Your task to perform on an android device: Go to privacy settings Image 0: 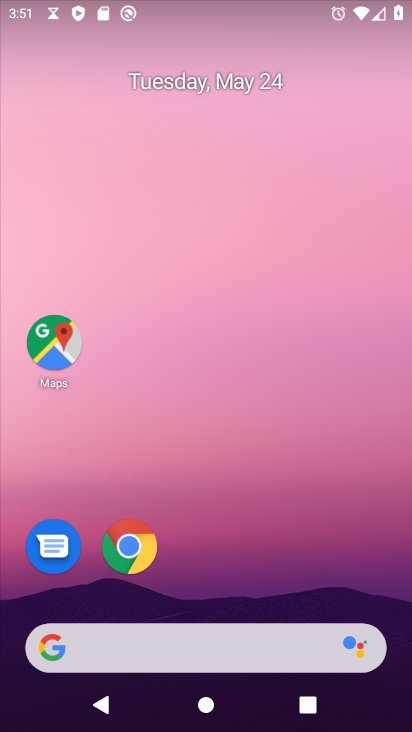
Step 0: drag from (262, 612) to (241, 79)
Your task to perform on an android device: Go to privacy settings Image 1: 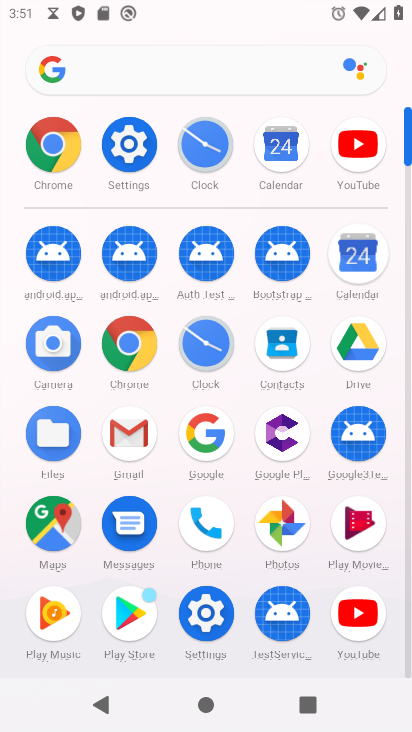
Step 1: click (124, 150)
Your task to perform on an android device: Go to privacy settings Image 2: 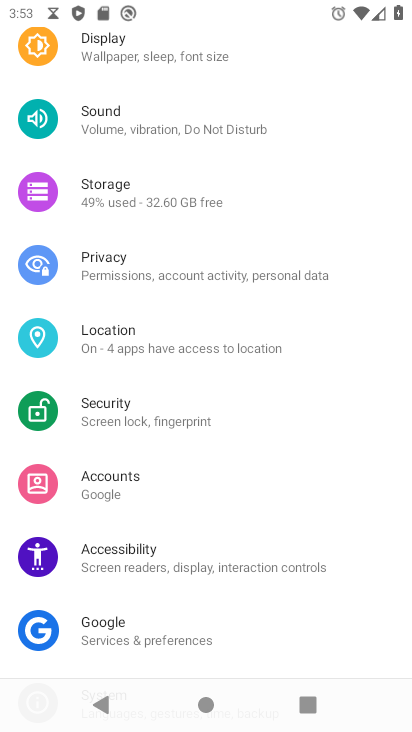
Step 2: drag from (164, 560) to (172, 243)
Your task to perform on an android device: Go to privacy settings Image 3: 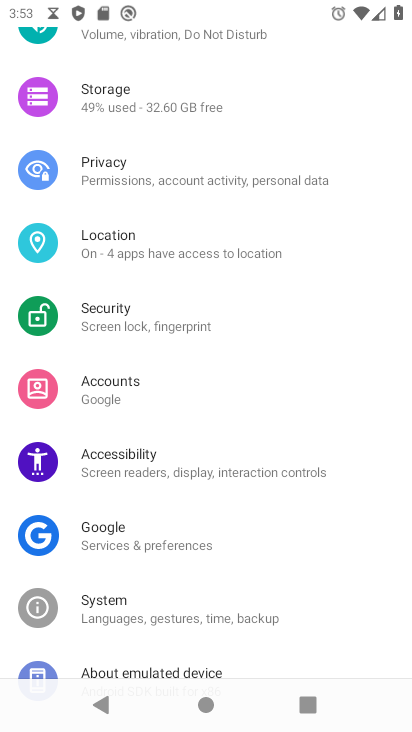
Step 3: click (102, 174)
Your task to perform on an android device: Go to privacy settings Image 4: 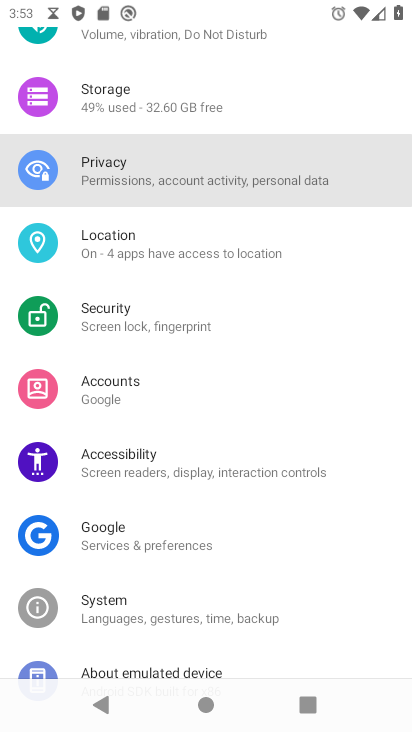
Step 4: click (103, 174)
Your task to perform on an android device: Go to privacy settings Image 5: 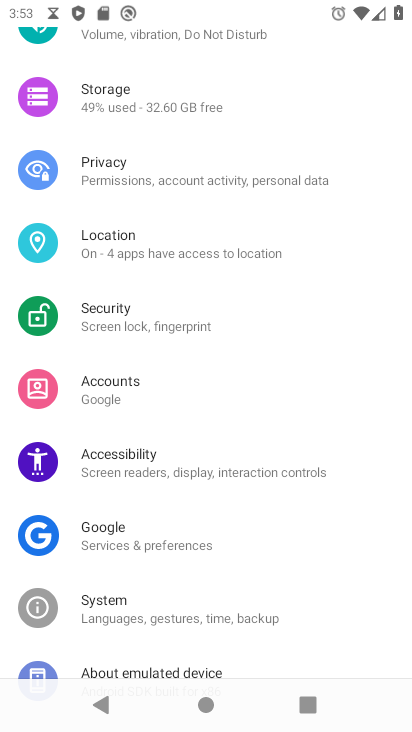
Step 5: click (104, 175)
Your task to perform on an android device: Go to privacy settings Image 6: 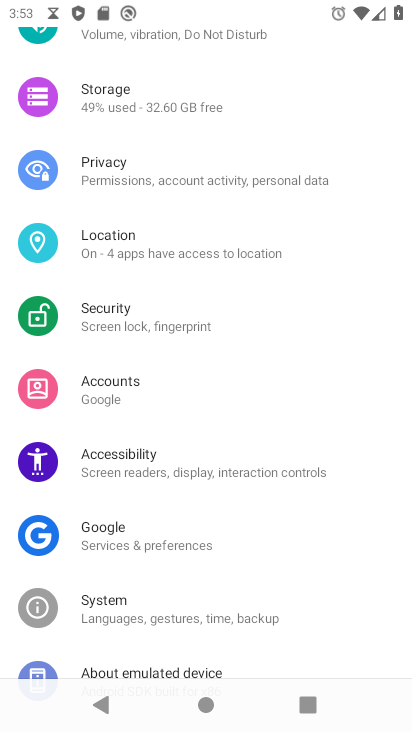
Step 6: click (104, 175)
Your task to perform on an android device: Go to privacy settings Image 7: 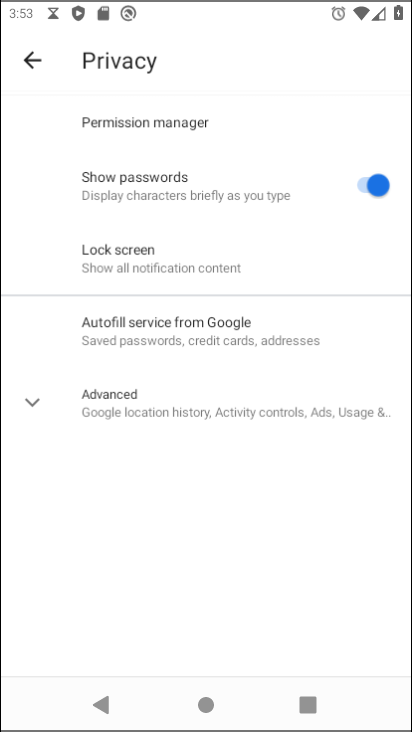
Step 7: click (104, 177)
Your task to perform on an android device: Go to privacy settings Image 8: 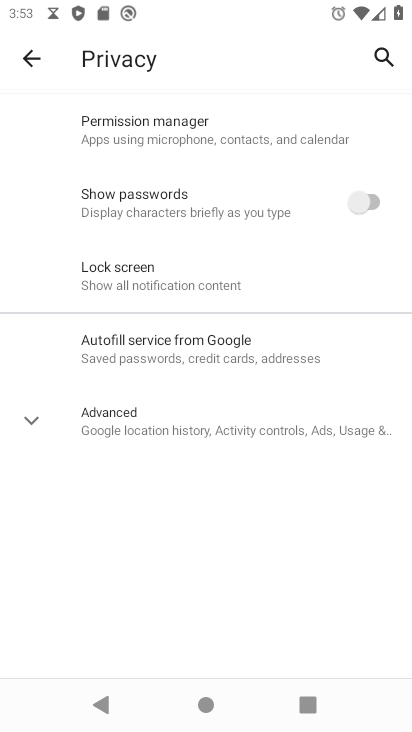
Step 8: task complete